Your task to perform on an android device: Open Yahoo.com Image 0: 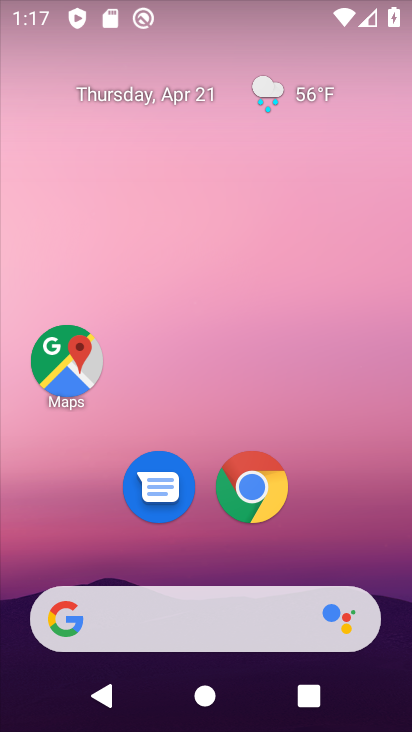
Step 0: click (252, 486)
Your task to perform on an android device: Open Yahoo.com Image 1: 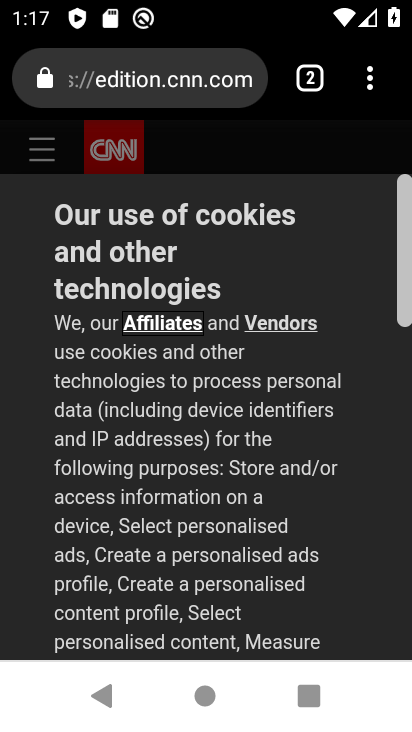
Step 1: click (100, 76)
Your task to perform on an android device: Open Yahoo.com Image 2: 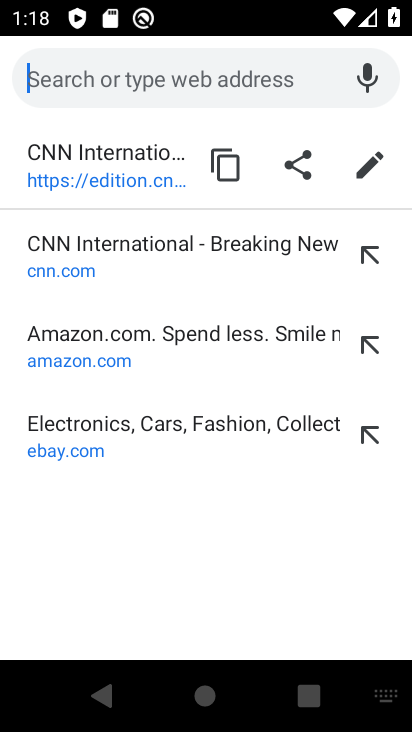
Step 2: type "yahoo.com"
Your task to perform on an android device: Open Yahoo.com Image 3: 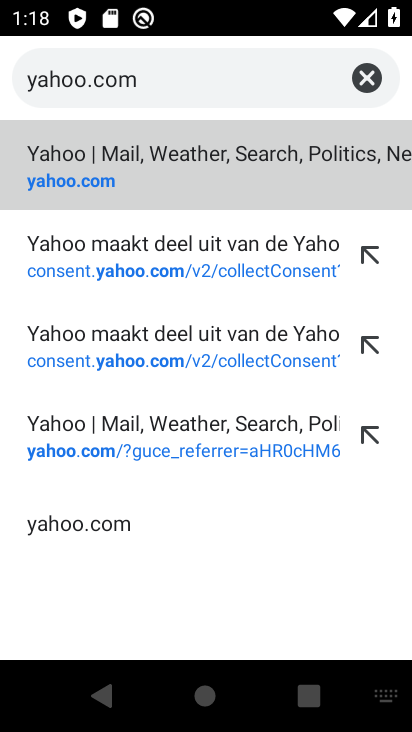
Step 3: click (24, 148)
Your task to perform on an android device: Open Yahoo.com Image 4: 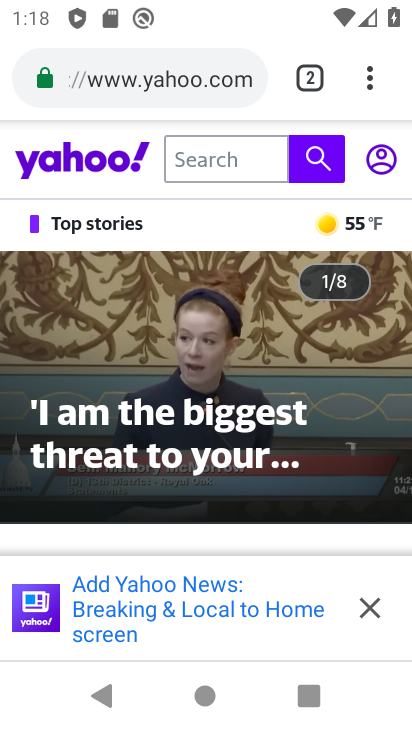
Step 4: task complete